Your task to perform on an android device: Go to battery settings Image 0: 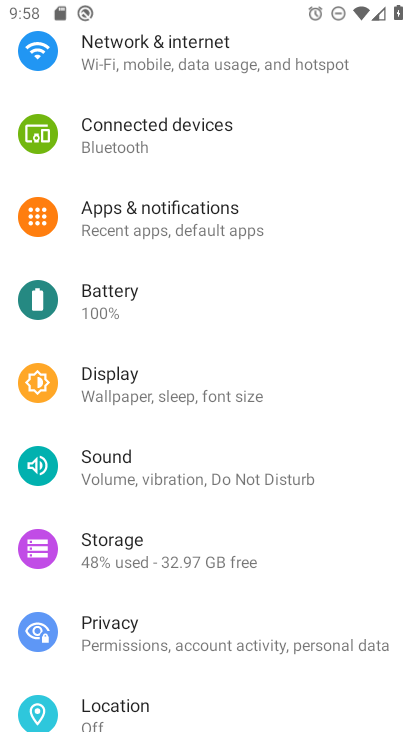
Step 0: press home button
Your task to perform on an android device: Go to battery settings Image 1: 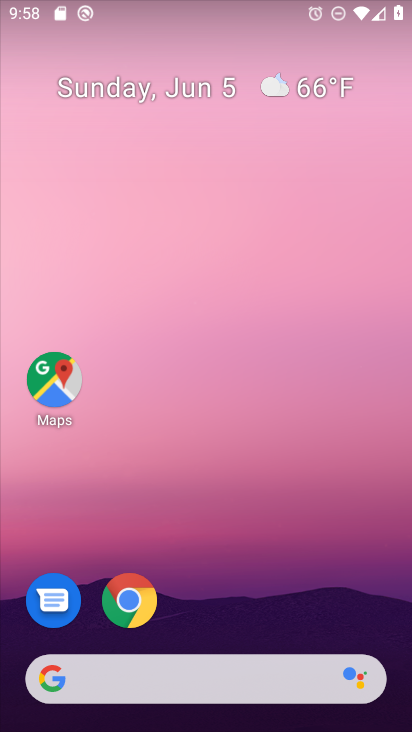
Step 1: drag from (393, 592) to (256, 84)
Your task to perform on an android device: Go to battery settings Image 2: 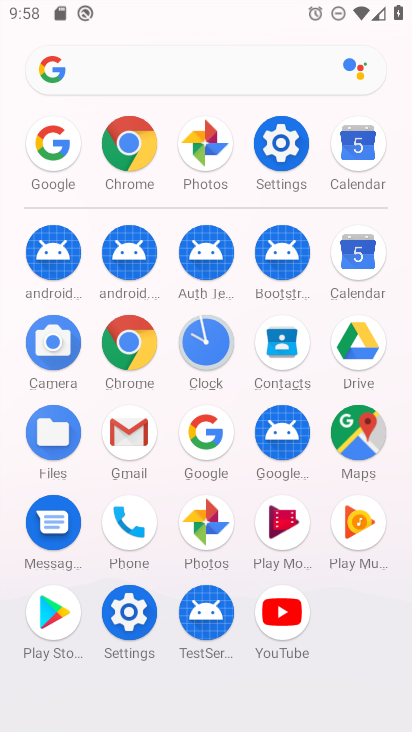
Step 2: click (134, 620)
Your task to perform on an android device: Go to battery settings Image 3: 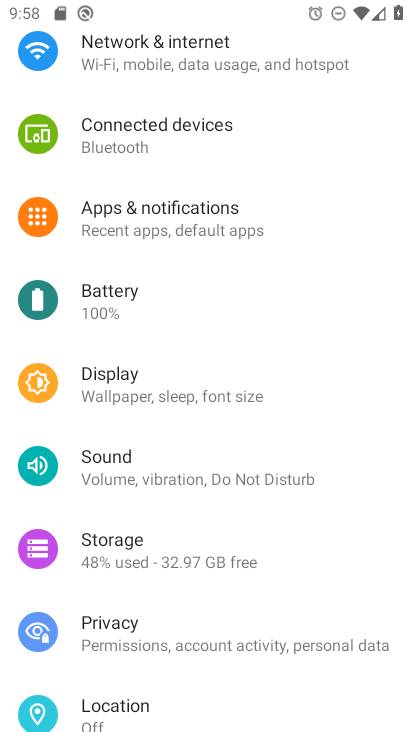
Step 3: click (144, 322)
Your task to perform on an android device: Go to battery settings Image 4: 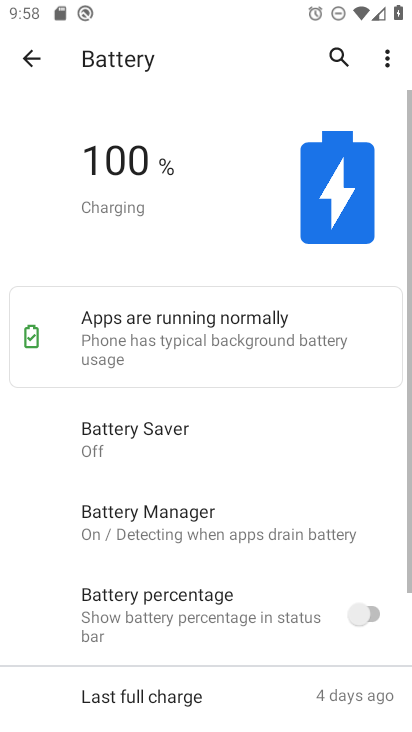
Step 4: task complete